Your task to perform on an android device: What's the weather like in Singapore? Image 0: 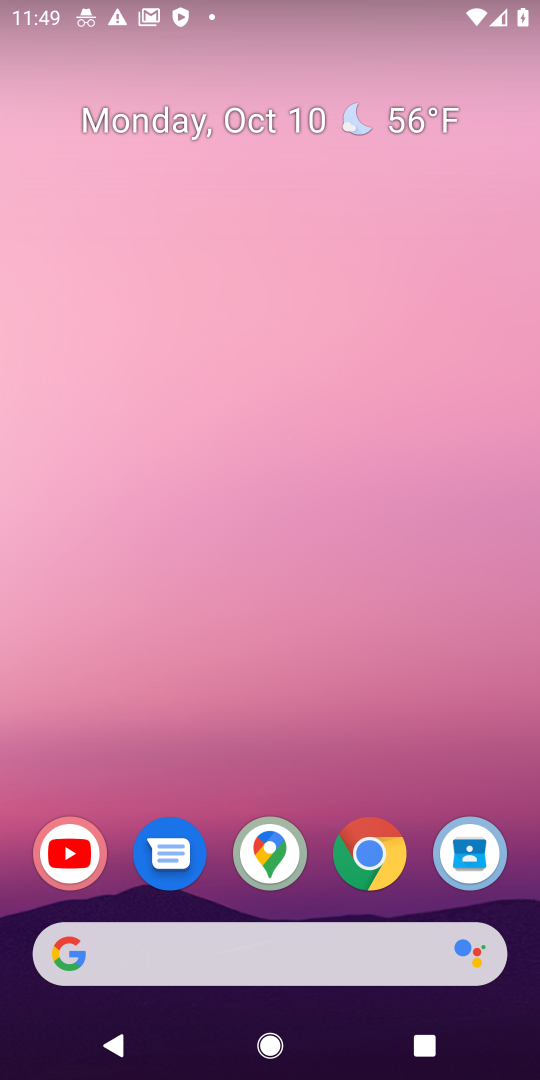
Step 0: press home button
Your task to perform on an android device: What's the weather like in Singapore? Image 1: 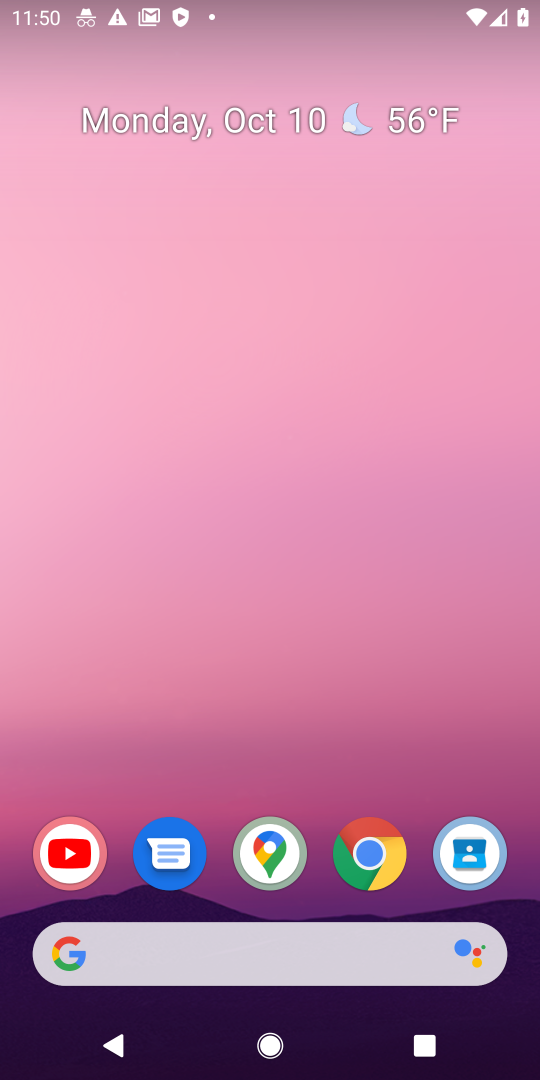
Step 1: click (261, 959)
Your task to perform on an android device: What's the weather like in Singapore? Image 2: 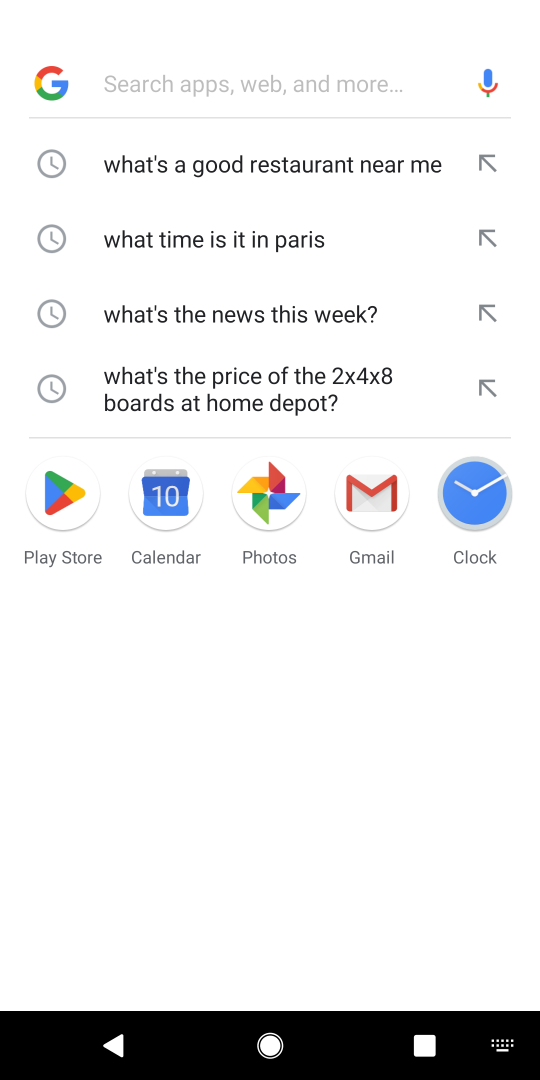
Step 2: type "What's the weather like in Singapore"
Your task to perform on an android device: What's the weather like in Singapore? Image 3: 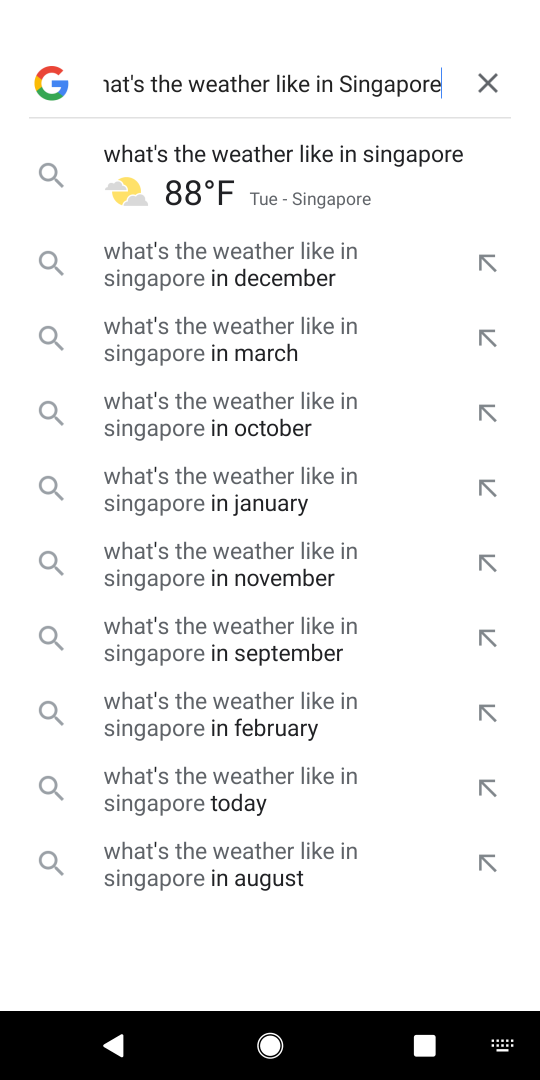
Step 3: press enter
Your task to perform on an android device: What's the weather like in Singapore? Image 4: 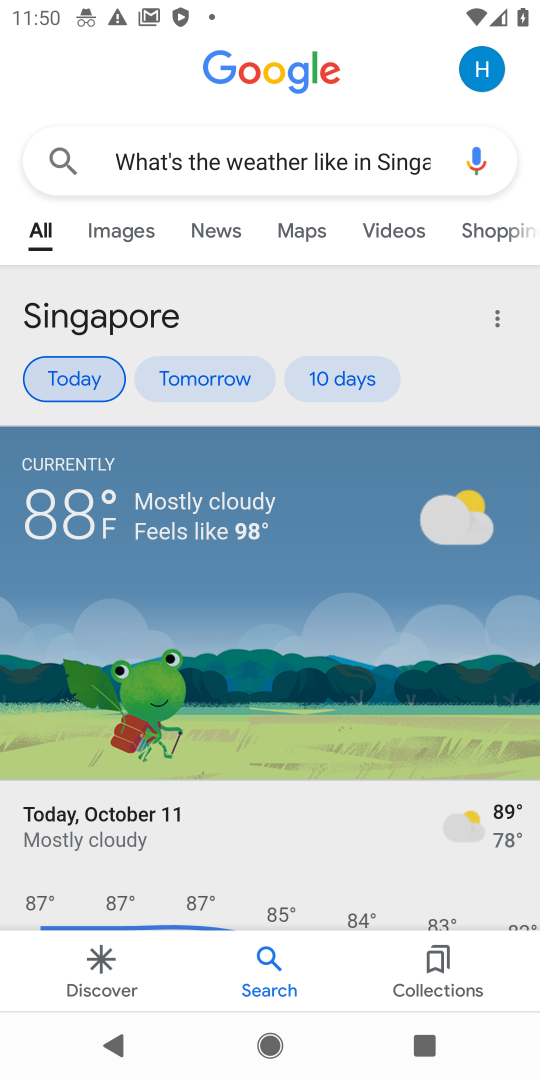
Step 4: task complete